Your task to perform on an android device: open app "Instagram" Image 0: 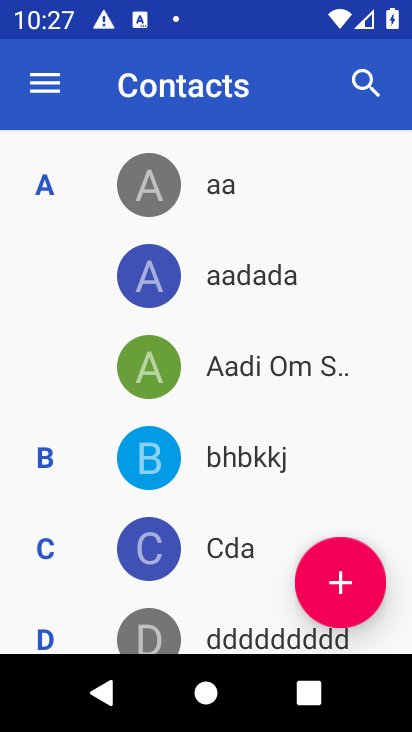
Step 0: press home button
Your task to perform on an android device: open app "Instagram" Image 1: 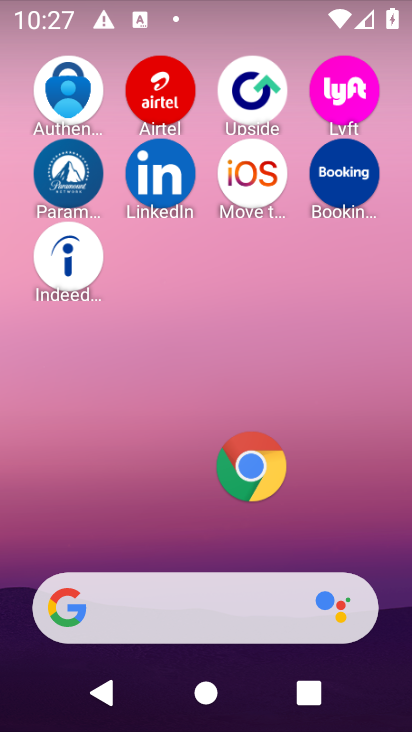
Step 1: drag from (151, 463) to (254, 54)
Your task to perform on an android device: open app "Instagram" Image 2: 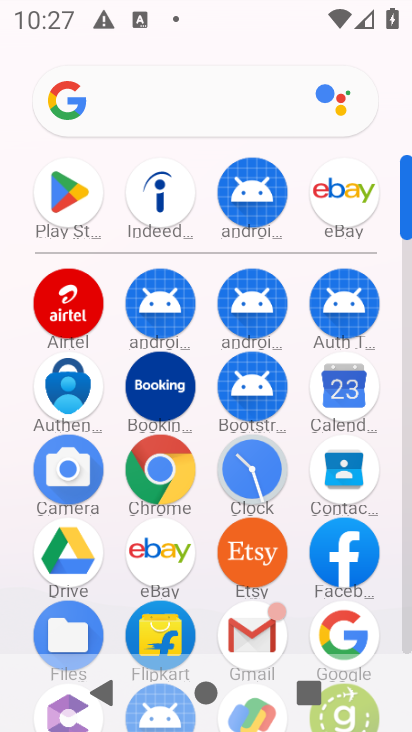
Step 2: click (83, 186)
Your task to perform on an android device: open app "Instagram" Image 3: 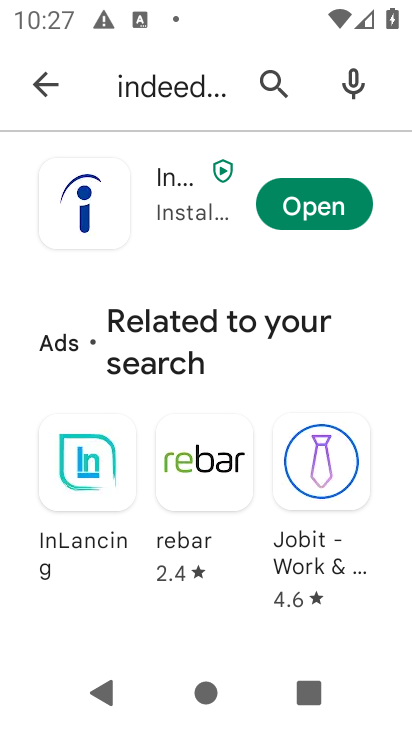
Step 3: click (278, 75)
Your task to perform on an android device: open app "Instagram" Image 4: 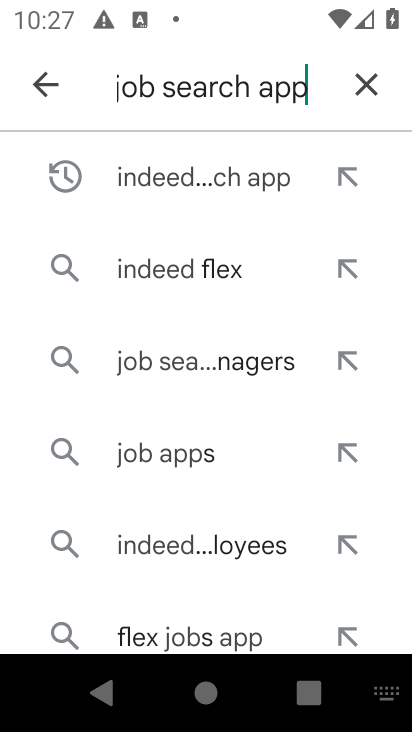
Step 4: click (364, 76)
Your task to perform on an android device: open app "Instagram" Image 5: 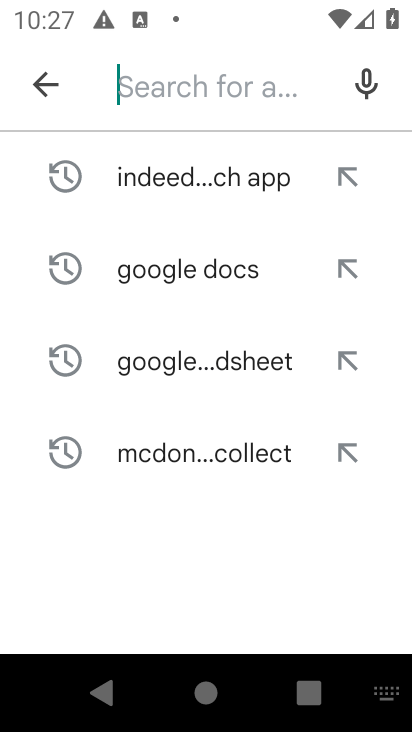
Step 5: click (181, 82)
Your task to perform on an android device: open app "Instagram" Image 6: 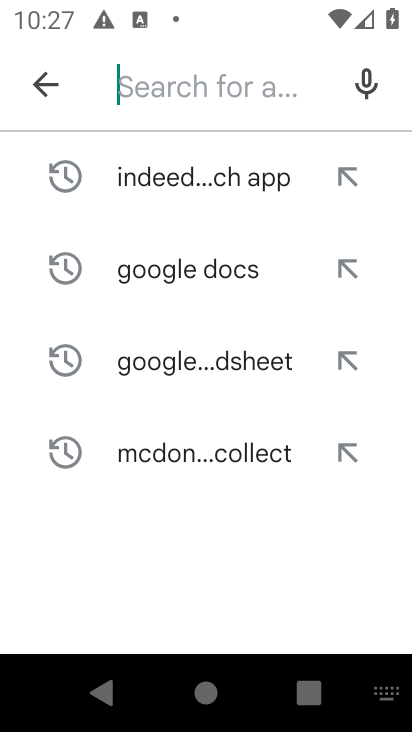
Step 6: type "Instagram"
Your task to perform on an android device: open app "Instagram" Image 7: 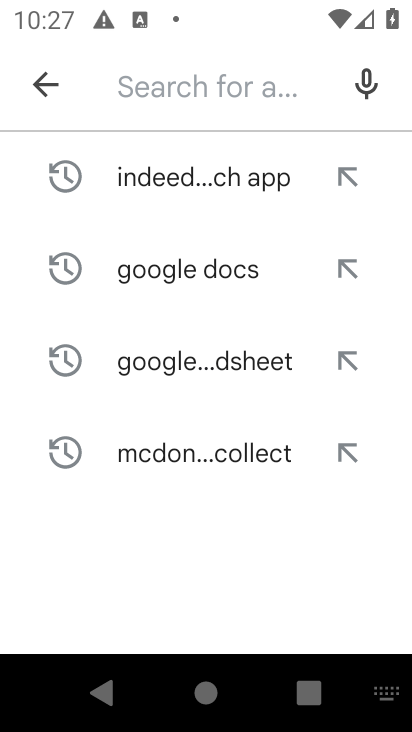
Step 7: click (67, 573)
Your task to perform on an android device: open app "Instagram" Image 8: 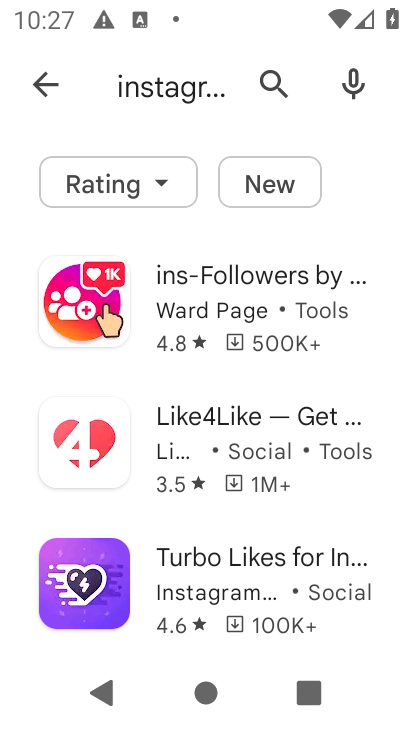
Step 8: task complete